Your task to perform on an android device: Go to Reddit.com Image 0: 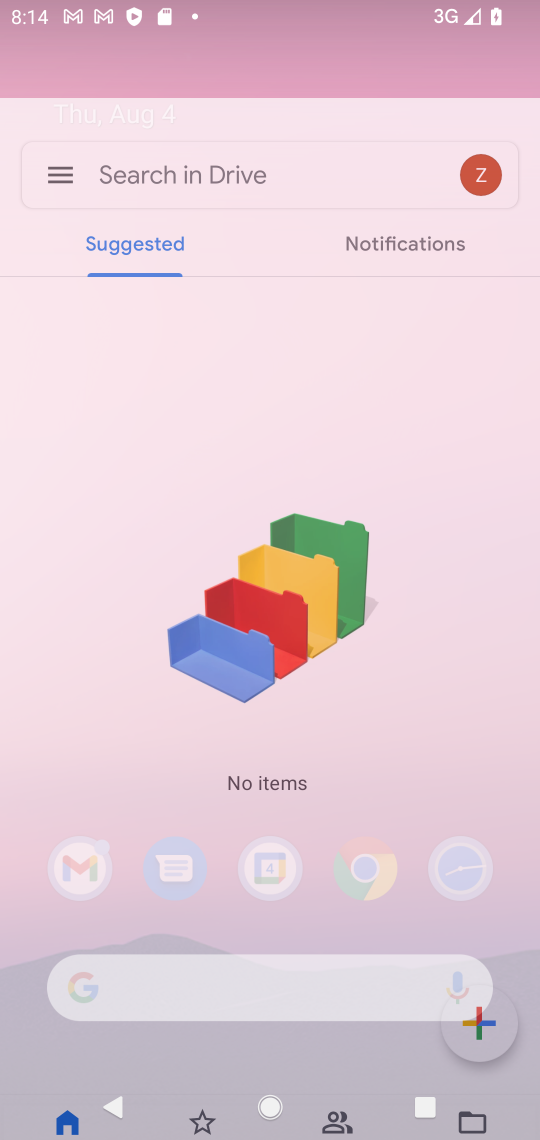
Step 0: press home button
Your task to perform on an android device: Go to Reddit.com Image 1: 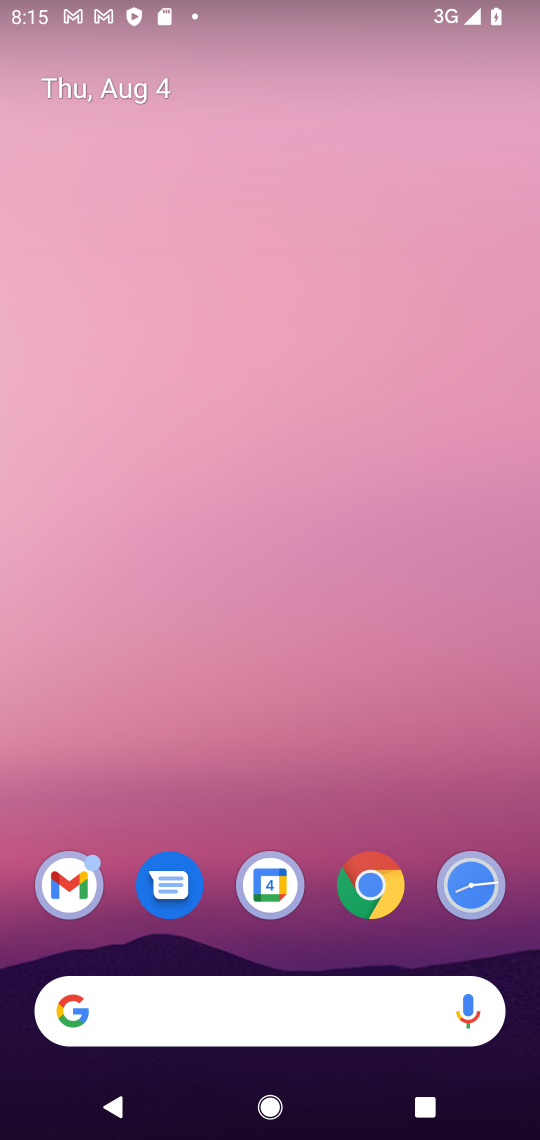
Step 1: click (384, 886)
Your task to perform on an android device: Go to Reddit.com Image 2: 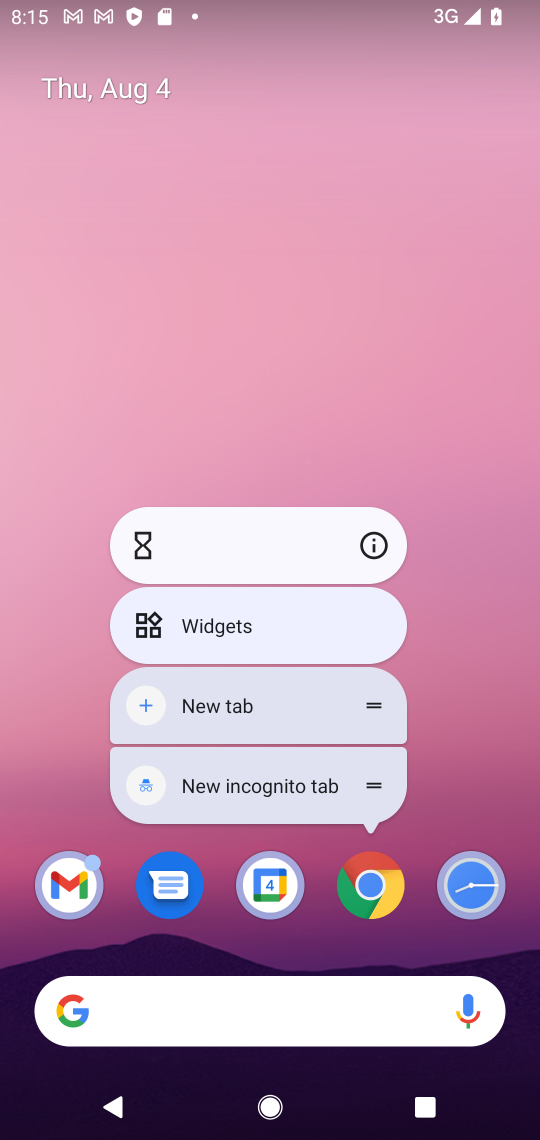
Step 2: click (376, 887)
Your task to perform on an android device: Go to Reddit.com Image 3: 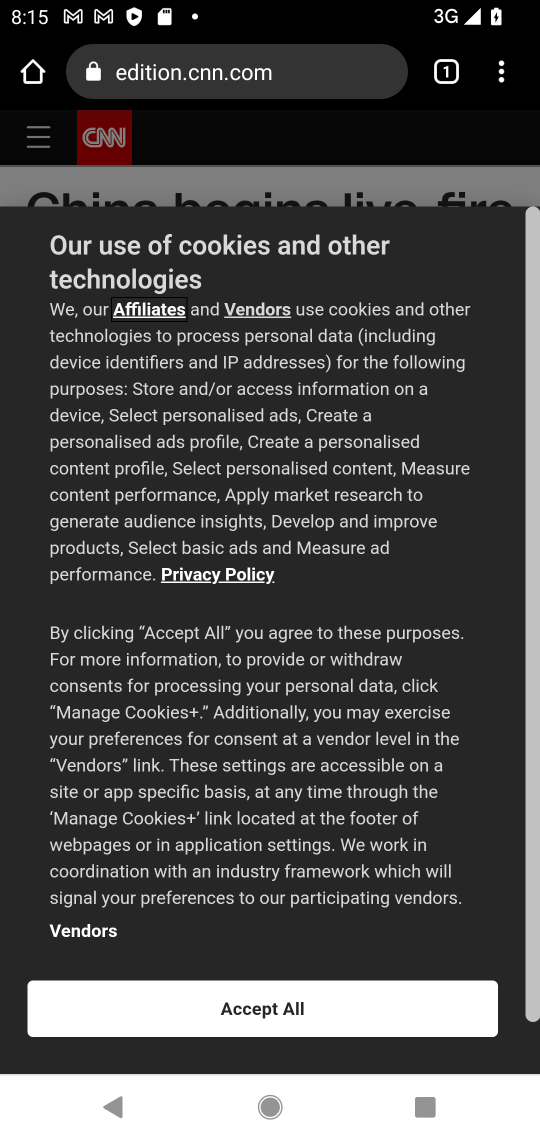
Step 3: click (502, 69)
Your task to perform on an android device: Go to Reddit.com Image 4: 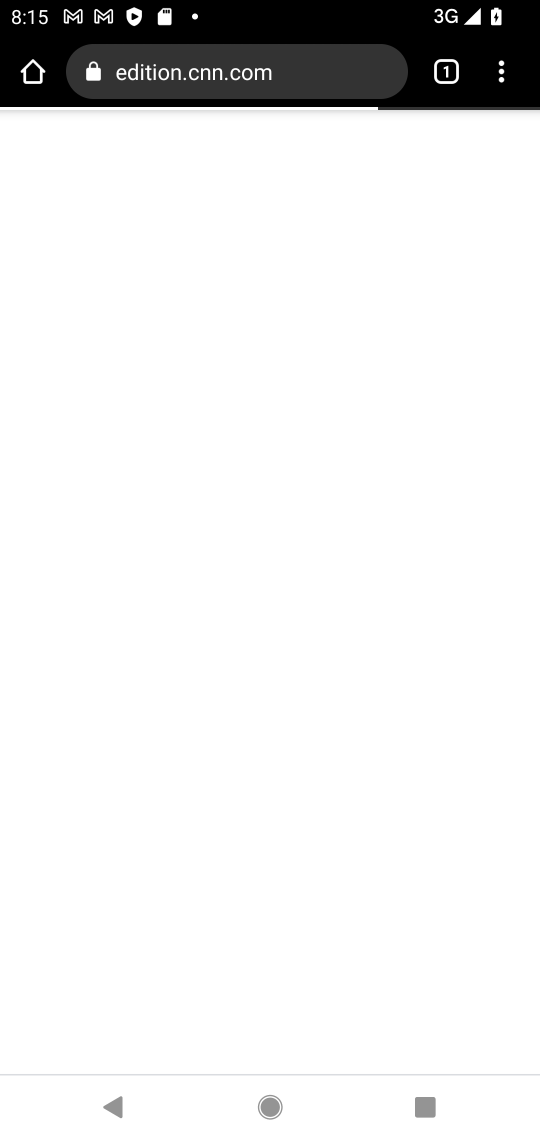
Step 4: click (240, 81)
Your task to perform on an android device: Go to Reddit.com Image 5: 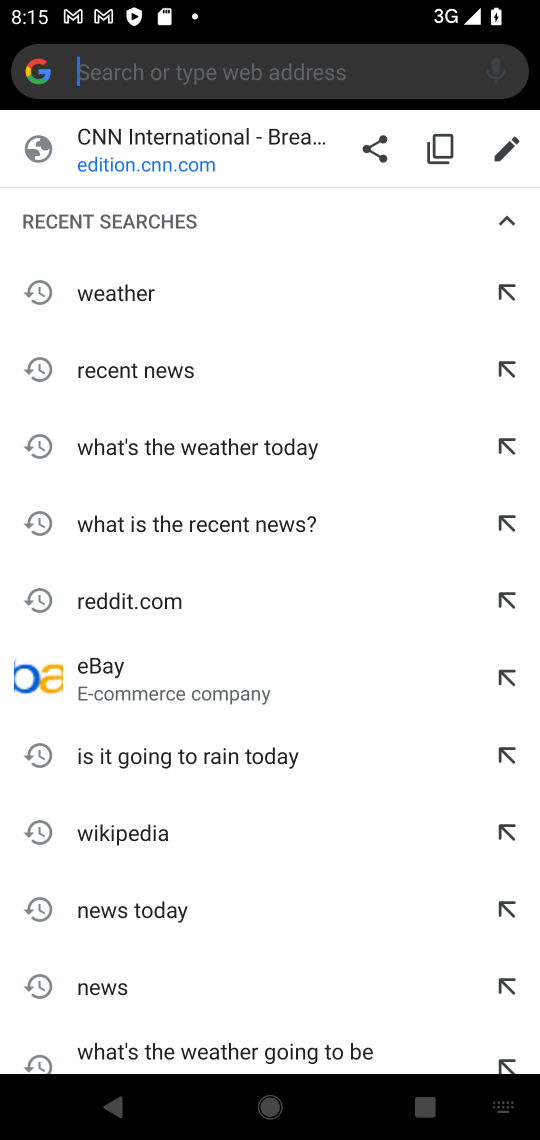
Step 5: type " Reddit.com"
Your task to perform on an android device: Go to Reddit.com Image 6: 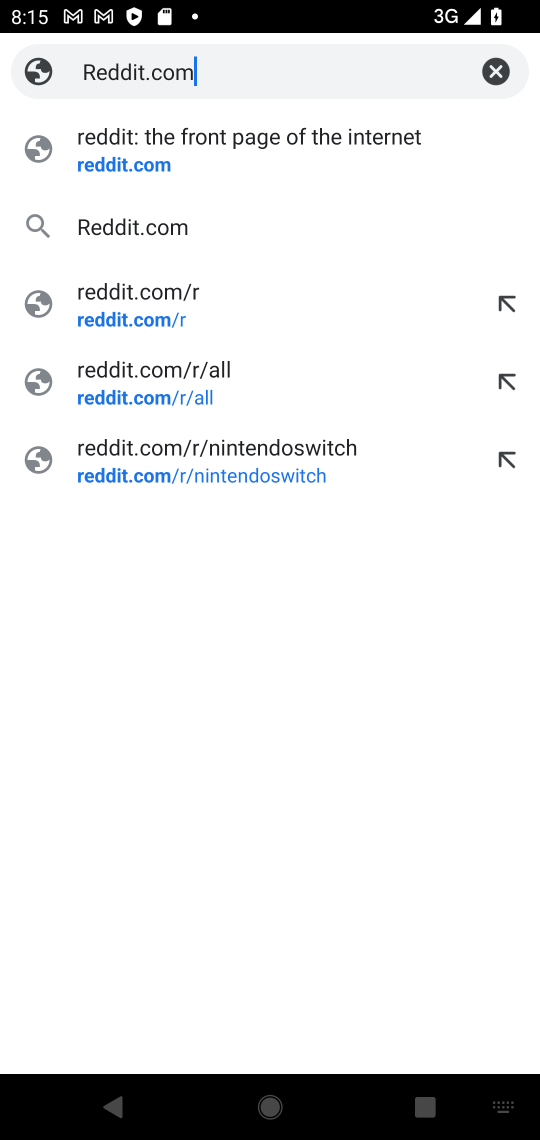
Step 6: click (136, 162)
Your task to perform on an android device: Go to Reddit.com Image 7: 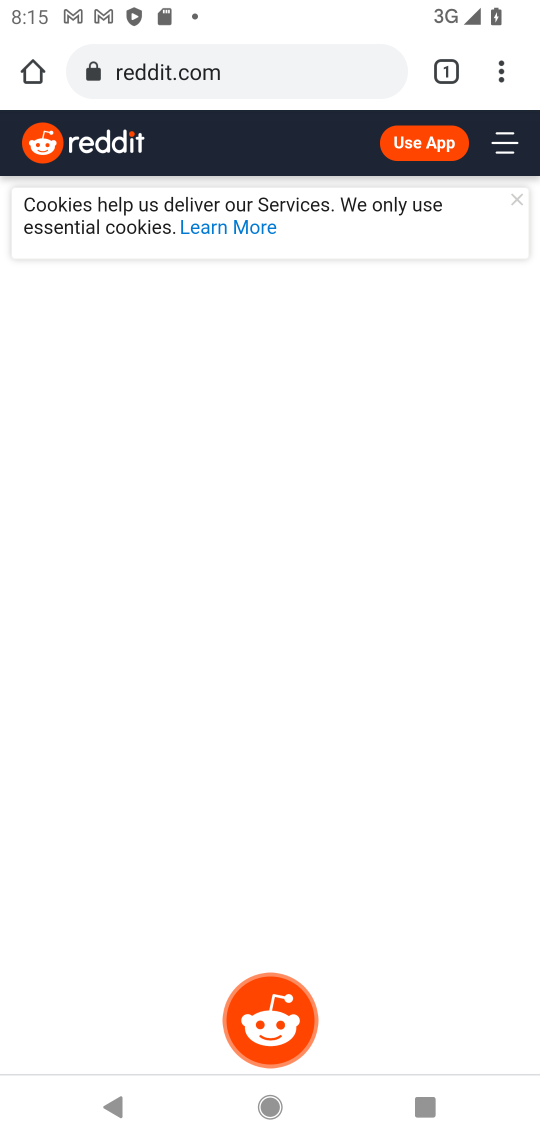
Step 7: task complete